Your task to perform on an android device: change the clock display to analog Image 0: 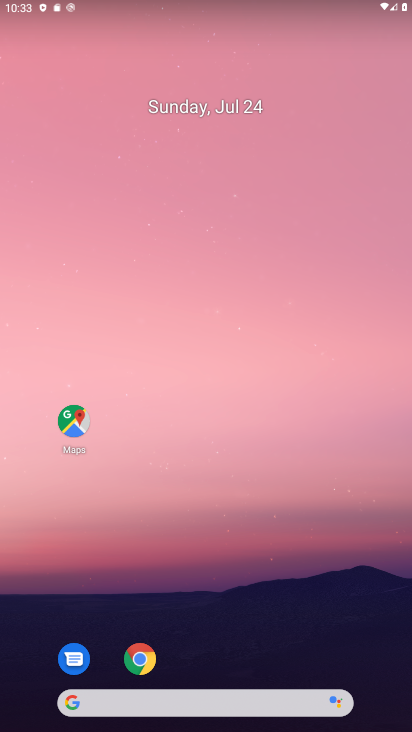
Step 0: press home button
Your task to perform on an android device: change the clock display to analog Image 1: 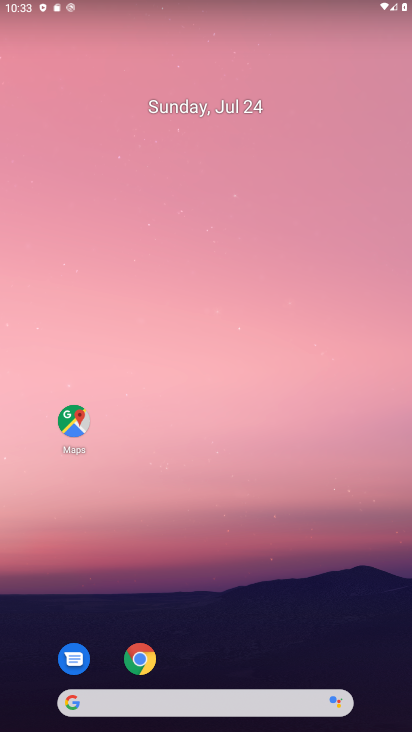
Step 1: drag from (298, 632) to (296, 37)
Your task to perform on an android device: change the clock display to analog Image 2: 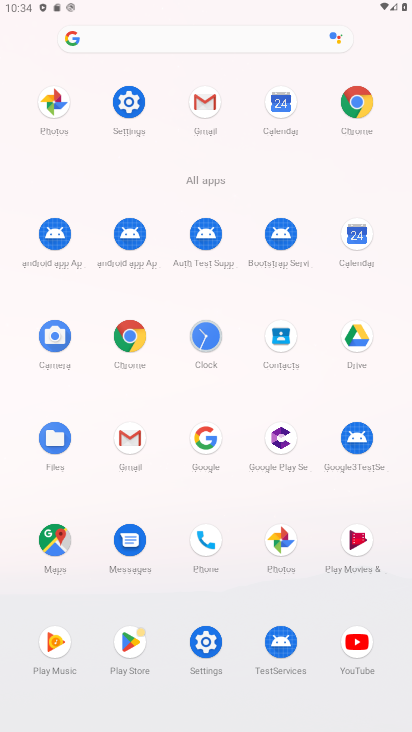
Step 2: click (204, 332)
Your task to perform on an android device: change the clock display to analog Image 3: 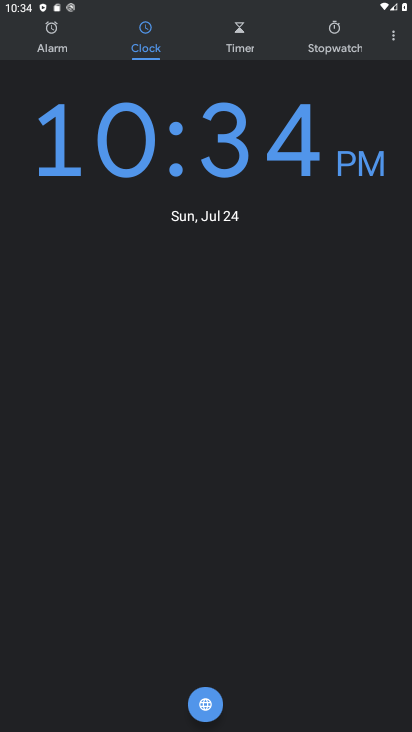
Step 3: click (394, 47)
Your task to perform on an android device: change the clock display to analog Image 4: 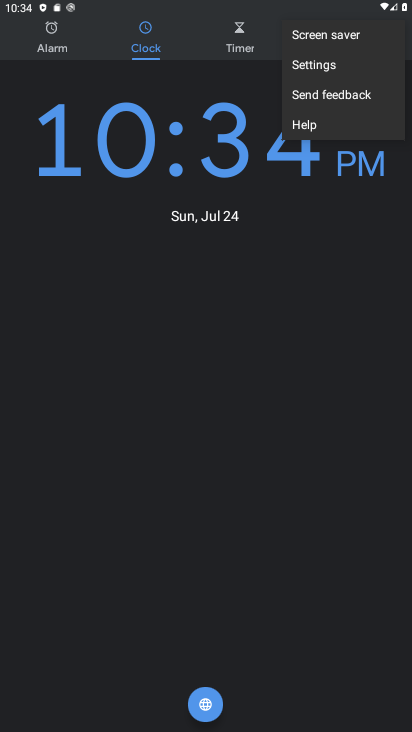
Step 4: click (318, 55)
Your task to perform on an android device: change the clock display to analog Image 5: 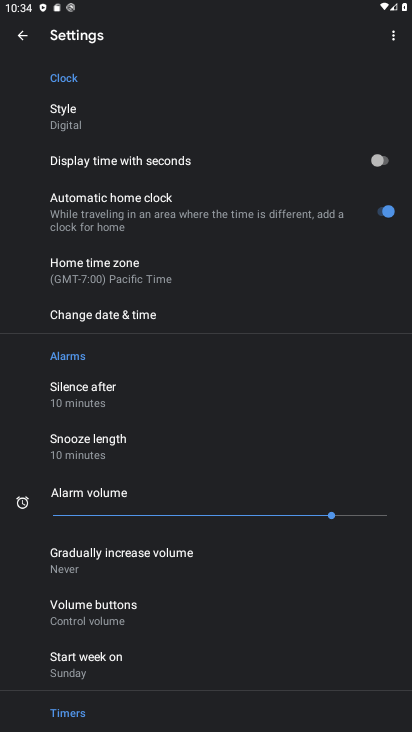
Step 5: click (71, 101)
Your task to perform on an android device: change the clock display to analog Image 6: 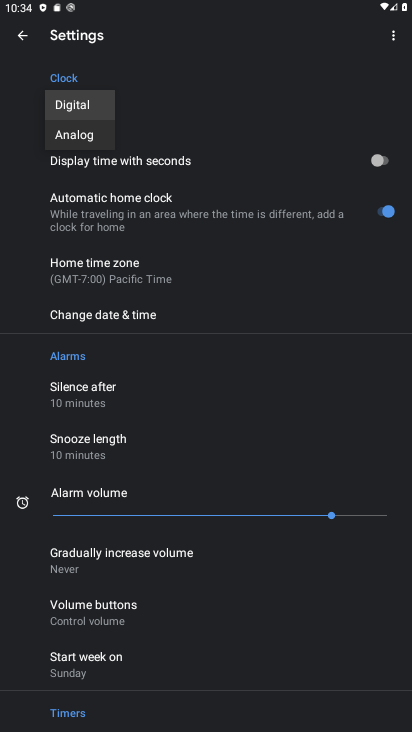
Step 6: click (83, 129)
Your task to perform on an android device: change the clock display to analog Image 7: 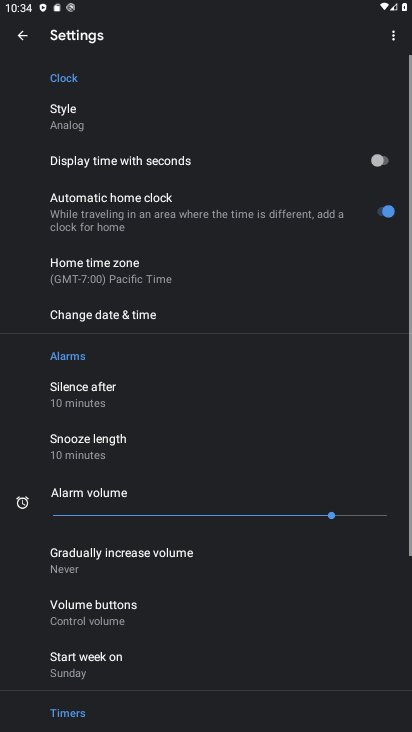
Step 7: task complete